Your task to perform on an android device: Open Youtube and go to the subscriptions tab Image 0: 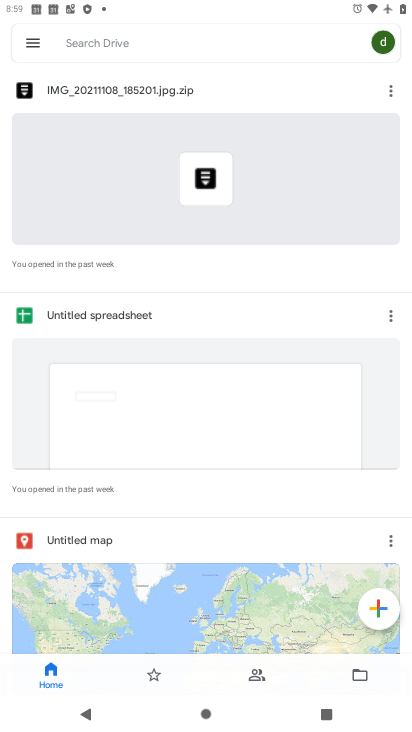
Step 0: press back button
Your task to perform on an android device: Open Youtube and go to the subscriptions tab Image 1: 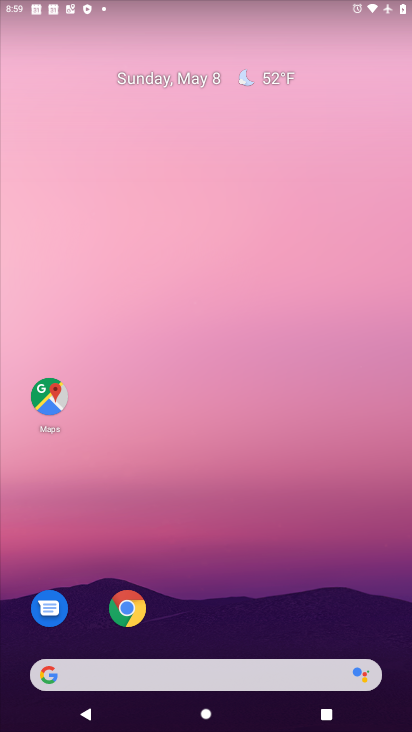
Step 1: drag from (243, 594) to (317, 12)
Your task to perform on an android device: Open Youtube and go to the subscriptions tab Image 2: 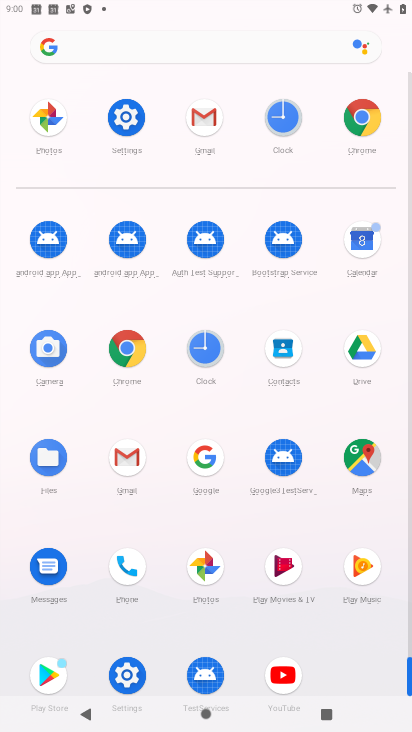
Step 2: click (278, 678)
Your task to perform on an android device: Open Youtube and go to the subscriptions tab Image 3: 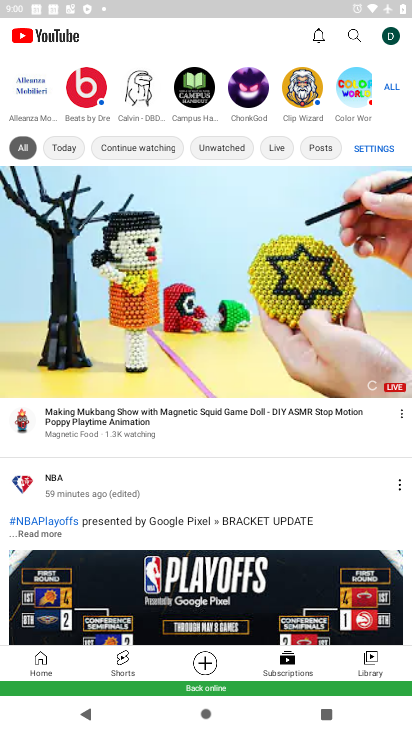
Step 3: click (278, 672)
Your task to perform on an android device: Open Youtube and go to the subscriptions tab Image 4: 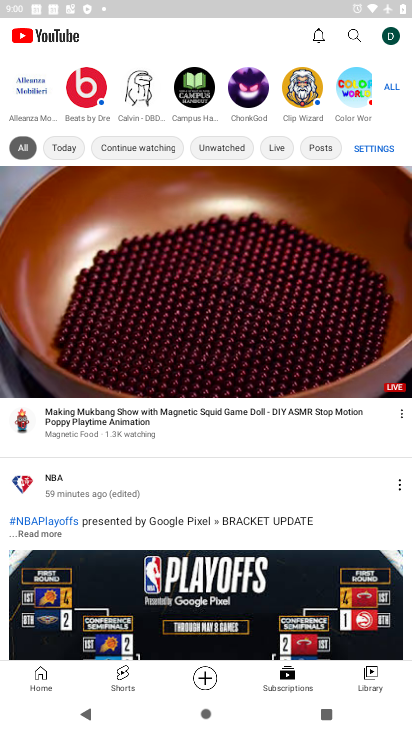
Step 4: task complete